Your task to perform on an android device: Find coffee shops on Maps Image 0: 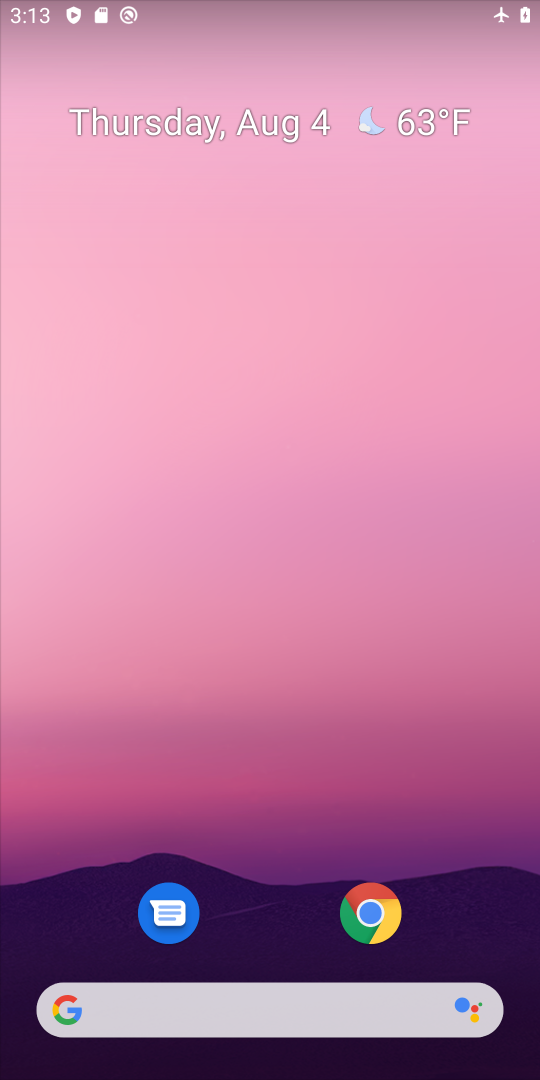
Step 0: drag from (324, 1010) to (302, 95)
Your task to perform on an android device: Find coffee shops on Maps Image 1: 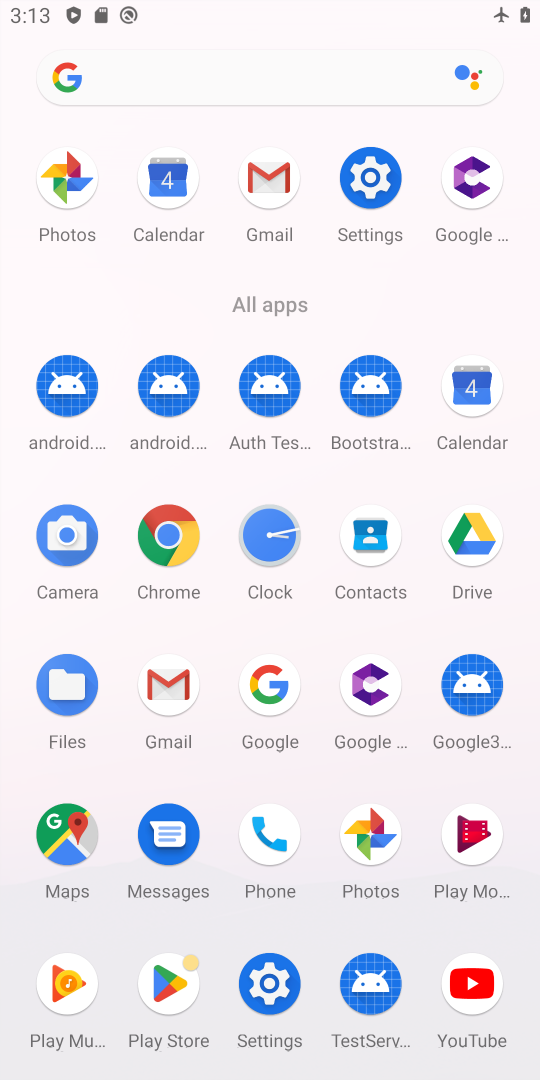
Step 1: click (77, 839)
Your task to perform on an android device: Find coffee shops on Maps Image 2: 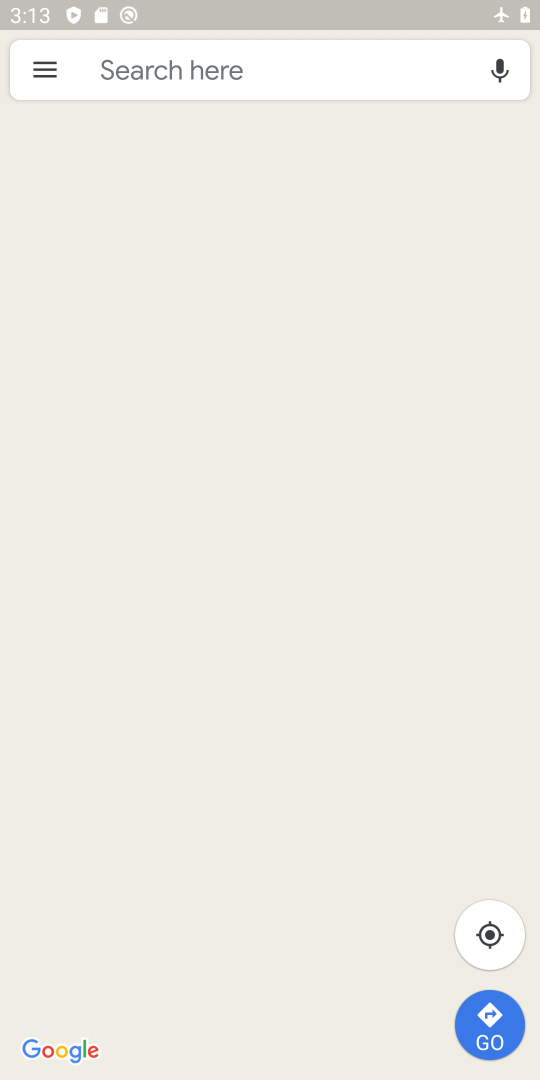
Step 2: click (296, 59)
Your task to perform on an android device: Find coffee shops on Maps Image 3: 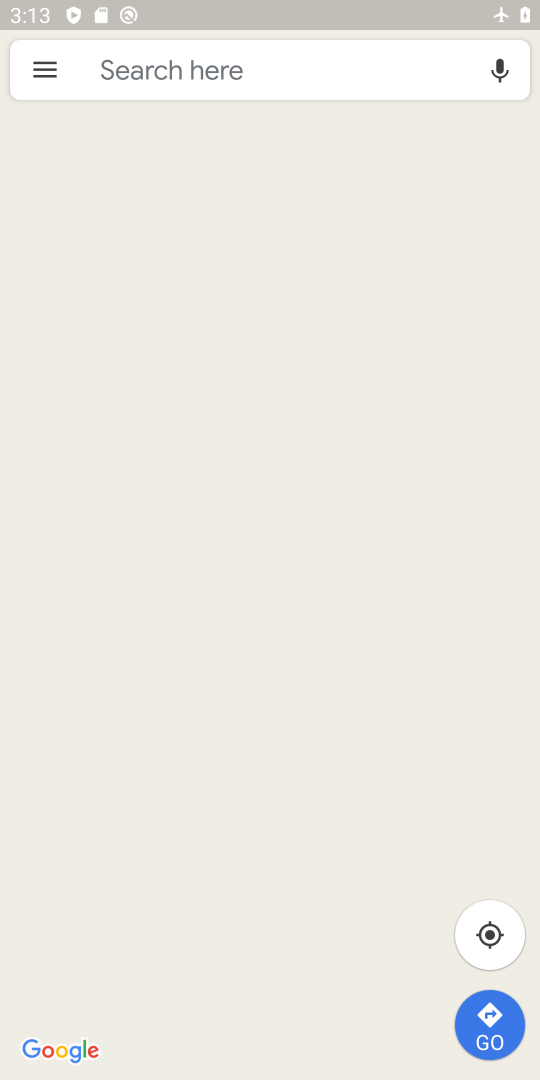
Step 3: click (296, 60)
Your task to perform on an android device: Find coffee shops on Maps Image 4: 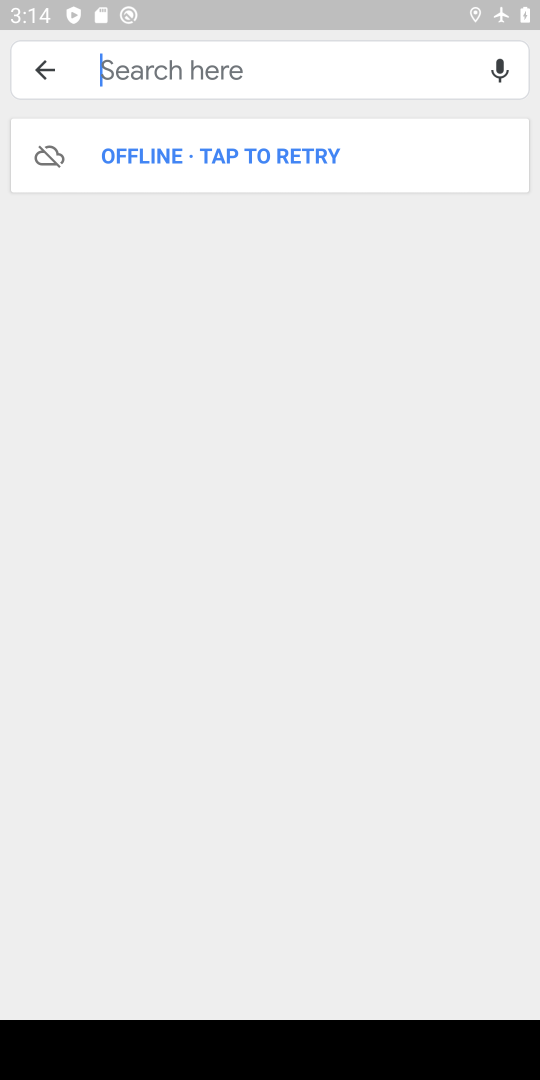
Step 4: task complete